Your task to perform on an android device: check storage Image 0: 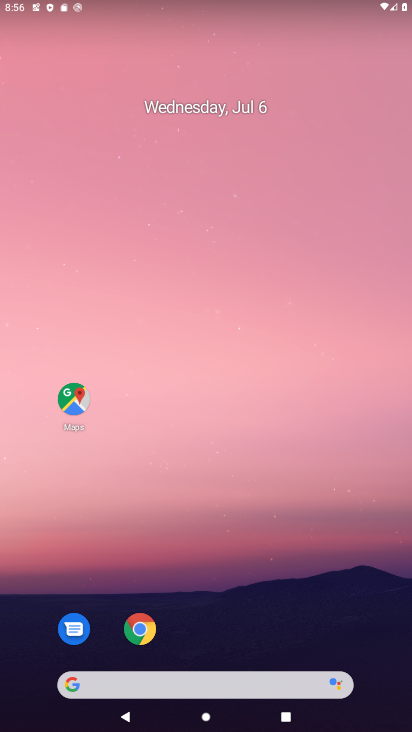
Step 0: drag from (215, 645) to (212, 156)
Your task to perform on an android device: check storage Image 1: 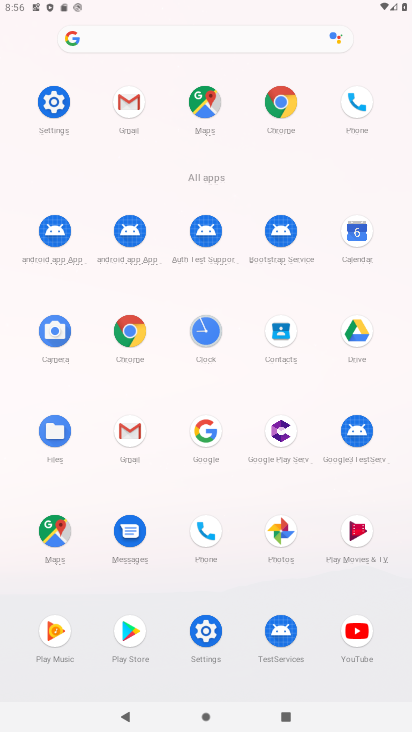
Step 1: click (204, 633)
Your task to perform on an android device: check storage Image 2: 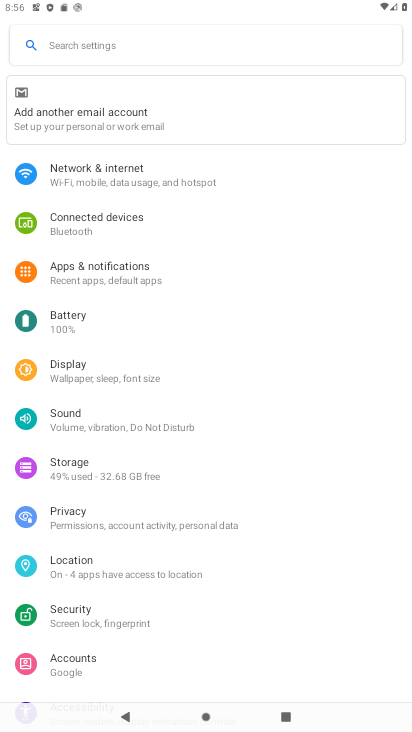
Step 2: click (88, 469)
Your task to perform on an android device: check storage Image 3: 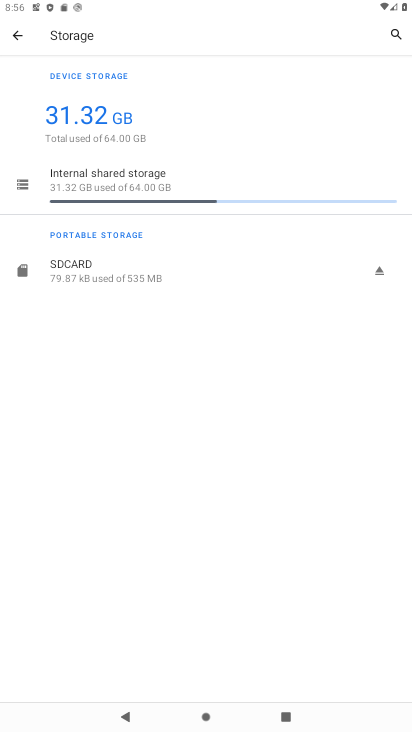
Step 3: click (144, 177)
Your task to perform on an android device: check storage Image 4: 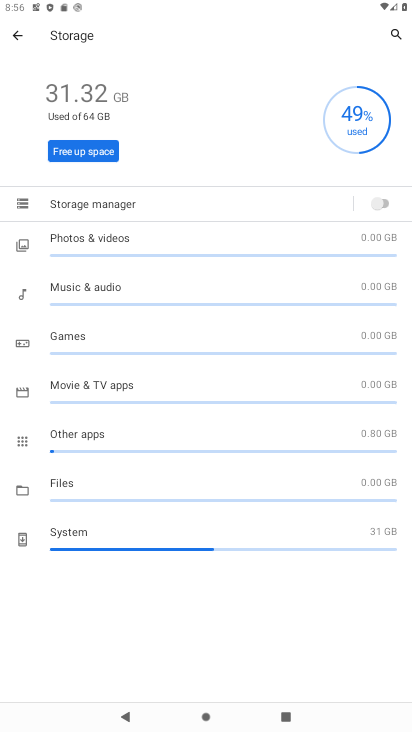
Step 4: task complete